Your task to perform on an android device: Open display settings Image 0: 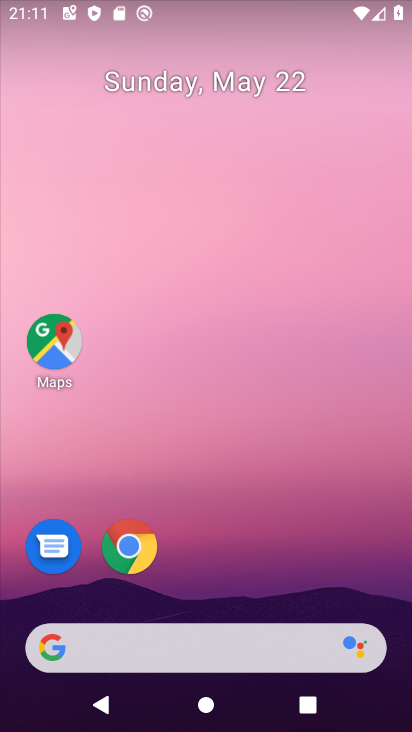
Step 0: drag from (194, 570) to (131, 102)
Your task to perform on an android device: Open display settings Image 1: 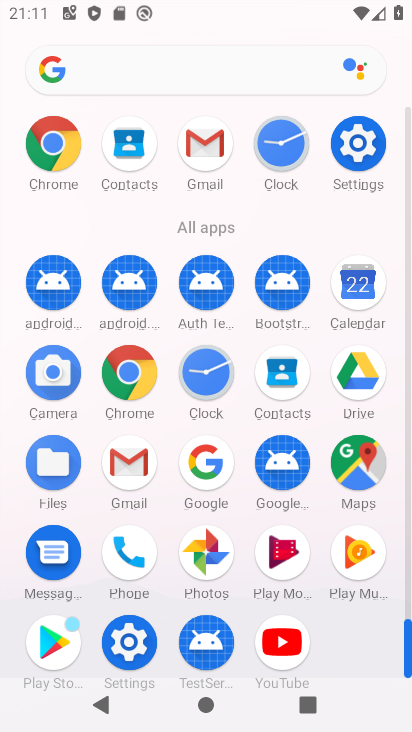
Step 1: click (361, 136)
Your task to perform on an android device: Open display settings Image 2: 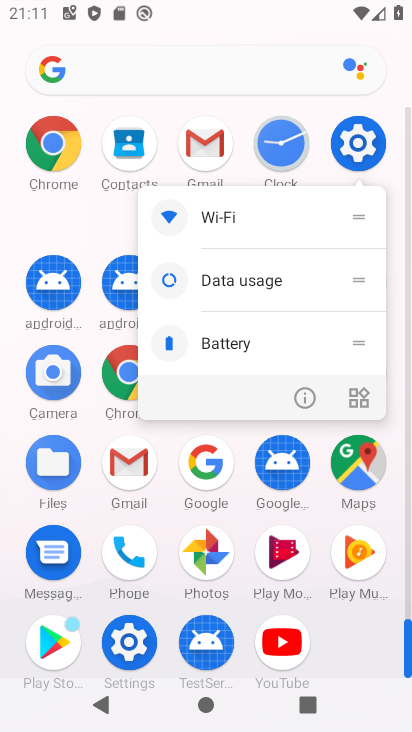
Step 2: click (307, 409)
Your task to perform on an android device: Open display settings Image 3: 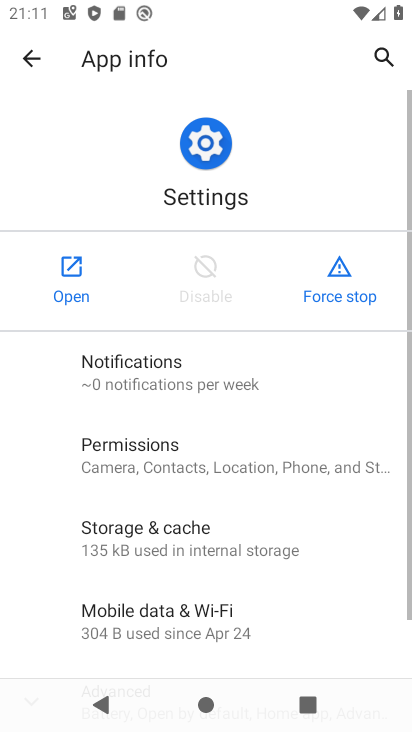
Step 3: click (77, 279)
Your task to perform on an android device: Open display settings Image 4: 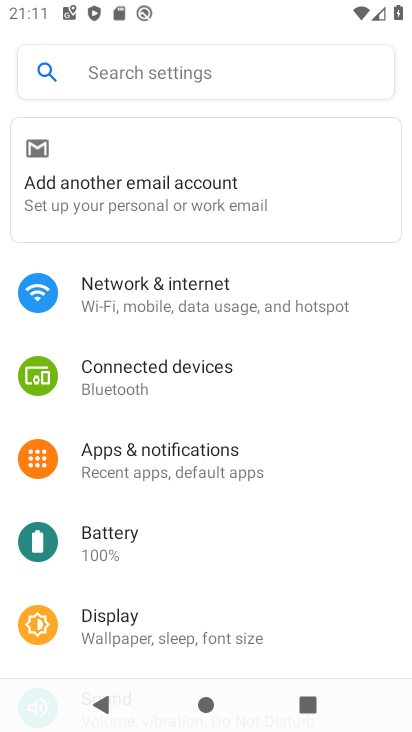
Step 4: drag from (207, 608) to (221, 216)
Your task to perform on an android device: Open display settings Image 5: 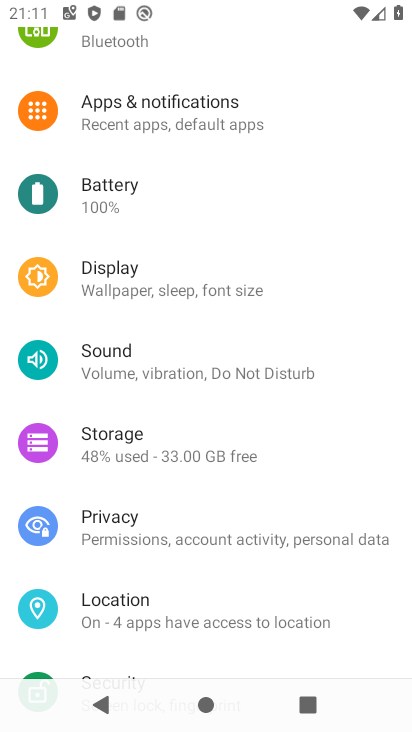
Step 5: click (122, 288)
Your task to perform on an android device: Open display settings Image 6: 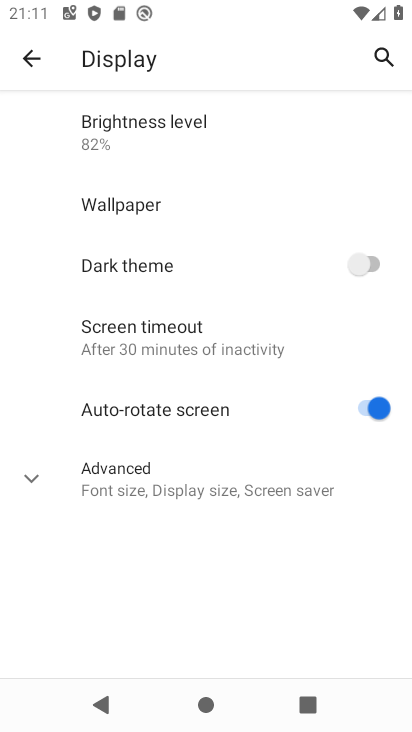
Step 6: click (156, 483)
Your task to perform on an android device: Open display settings Image 7: 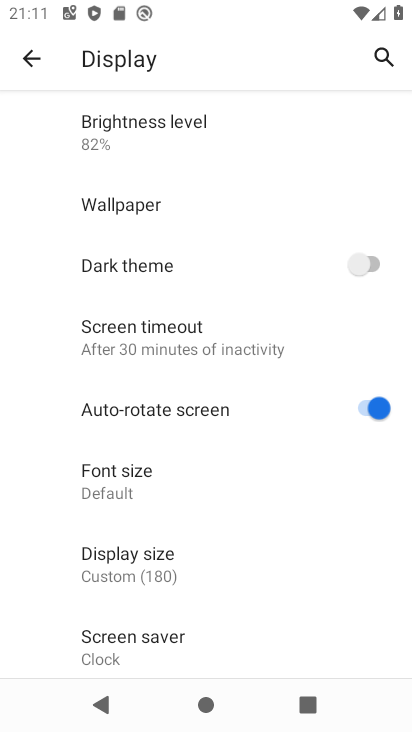
Step 7: task complete